Your task to perform on an android device: turn notification dots on Image 0: 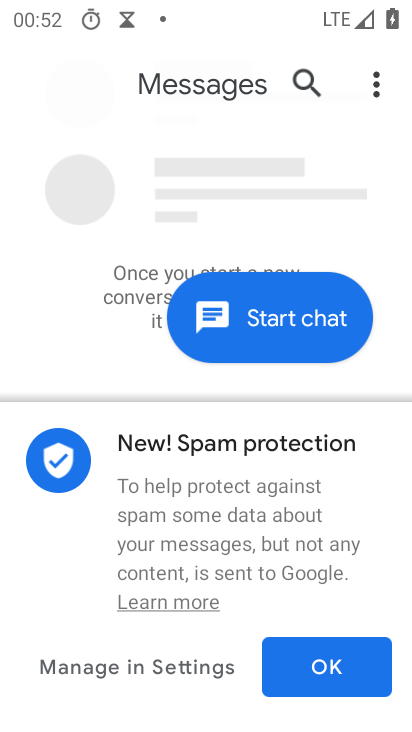
Step 0: press home button
Your task to perform on an android device: turn notification dots on Image 1: 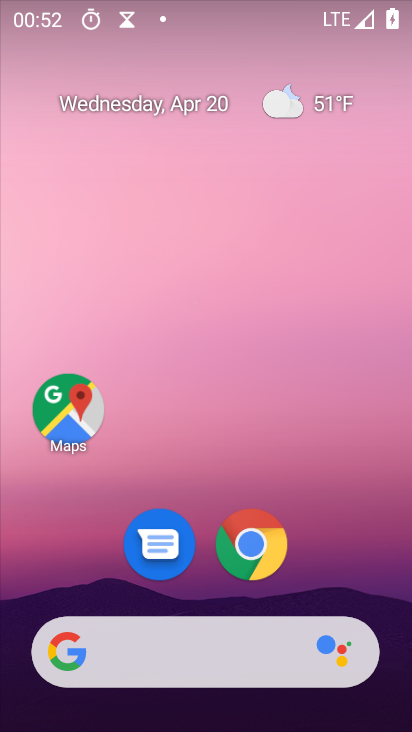
Step 1: drag from (343, 576) to (391, 71)
Your task to perform on an android device: turn notification dots on Image 2: 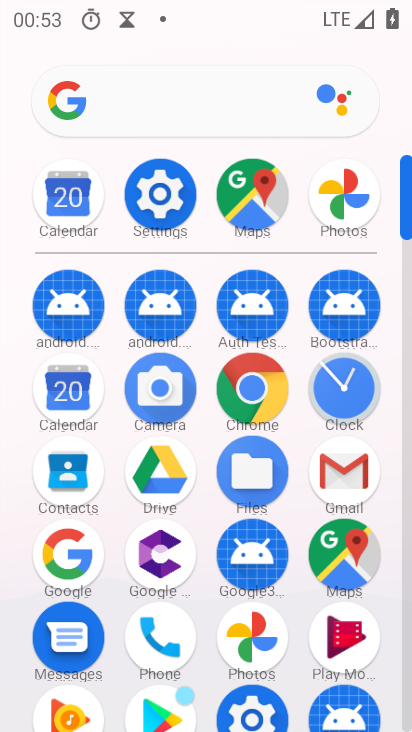
Step 2: click (262, 704)
Your task to perform on an android device: turn notification dots on Image 3: 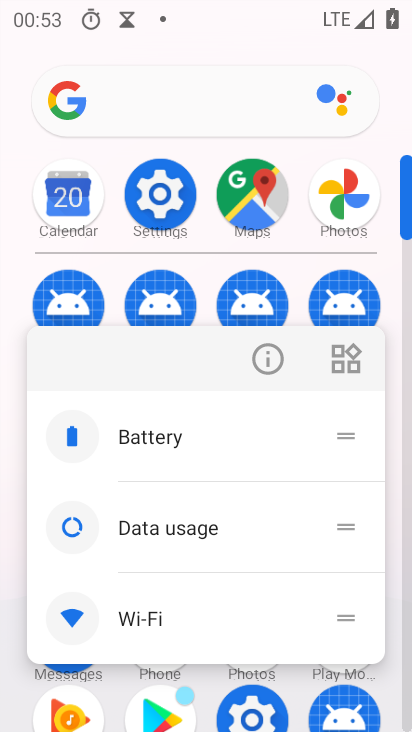
Step 3: click (256, 697)
Your task to perform on an android device: turn notification dots on Image 4: 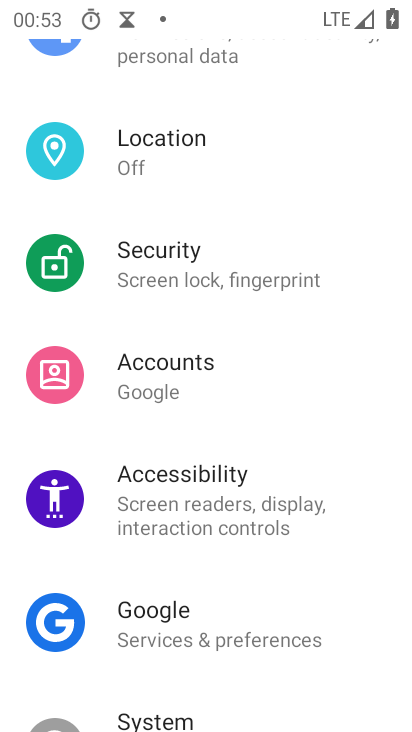
Step 4: drag from (226, 425) to (229, 487)
Your task to perform on an android device: turn notification dots on Image 5: 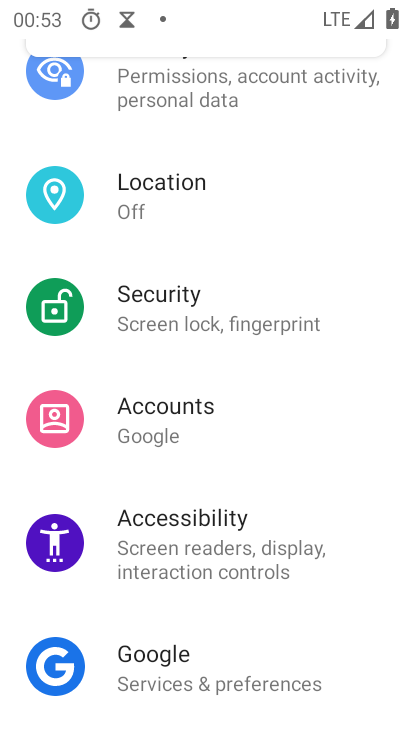
Step 5: drag from (204, 371) to (208, 429)
Your task to perform on an android device: turn notification dots on Image 6: 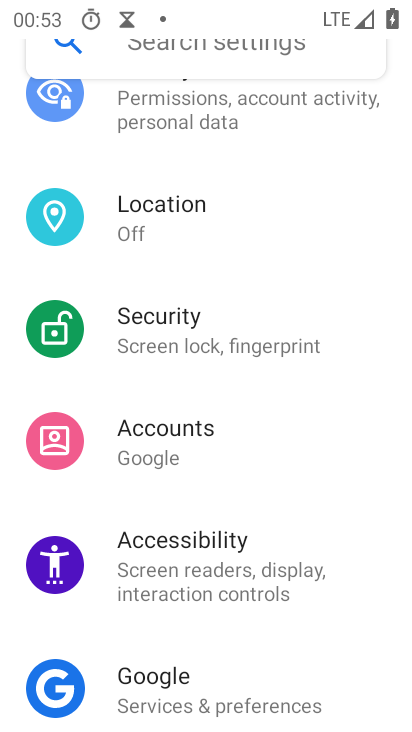
Step 6: drag from (199, 390) to (201, 470)
Your task to perform on an android device: turn notification dots on Image 7: 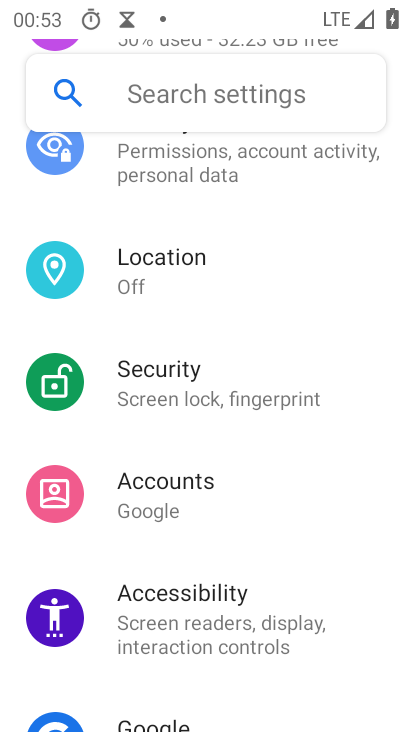
Step 7: drag from (197, 398) to (217, 464)
Your task to perform on an android device: turn notification dots on Image 8: 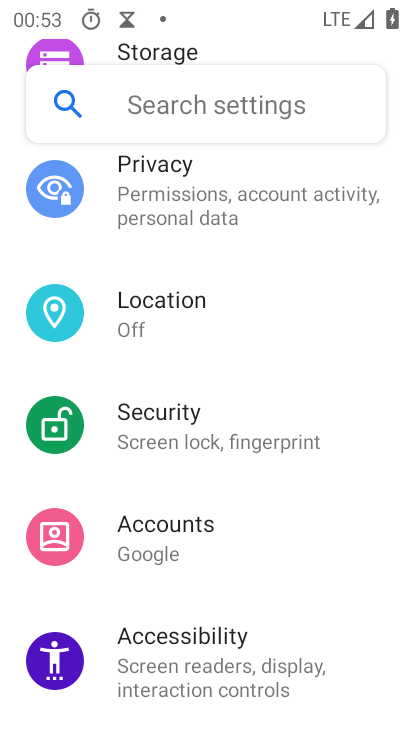
Step 8: drag from (204, 406) to (210, 447)
Your task to perform on an android device: turn notification dots on Image 9: 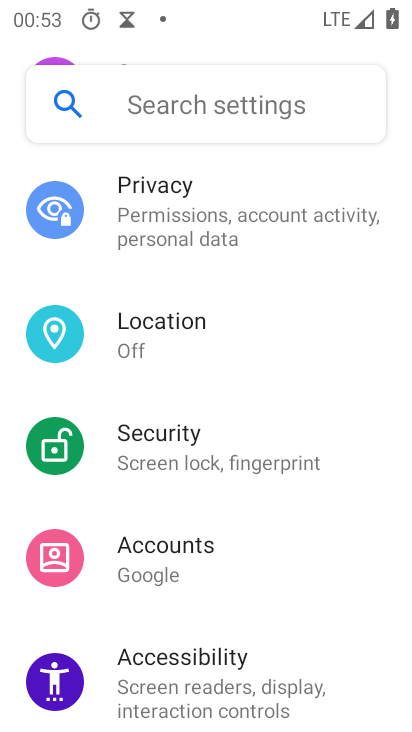
Step 9: drag from (189, 387) to (198, 466)
Your task to perform on an android device: turn notification dots on Image 10: 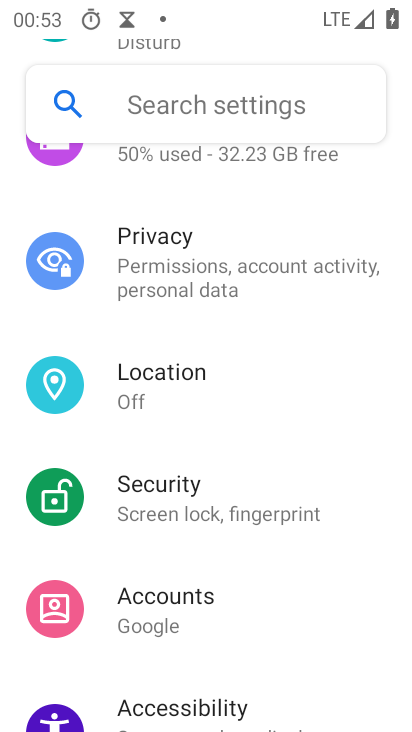
Step 10: drag from (191, 409) to (202, 485)
Your task to perform on an android device: turn notification dots on Image 11: 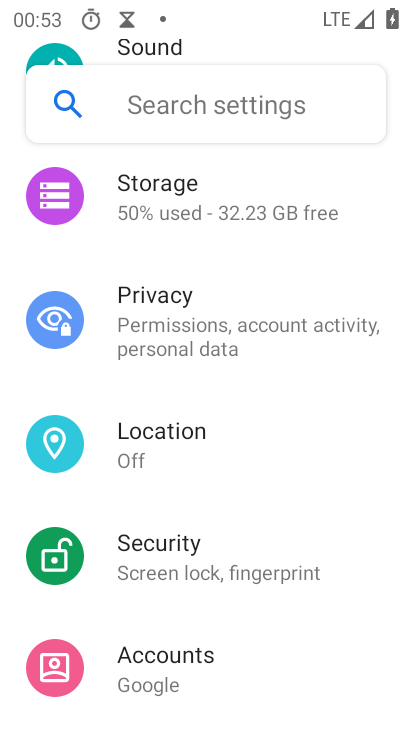
Step 11: drag from (190, 418) to (207, 472)
Your task to perform on an android device: turn notification dots on Image 12: 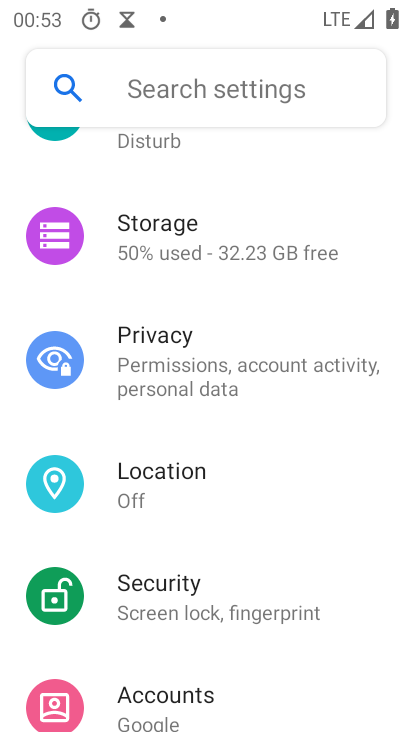
Step 12: drag from (201, 388) to (213, 456)
Your task to perform on an android device: turn notification dots on Image 13: 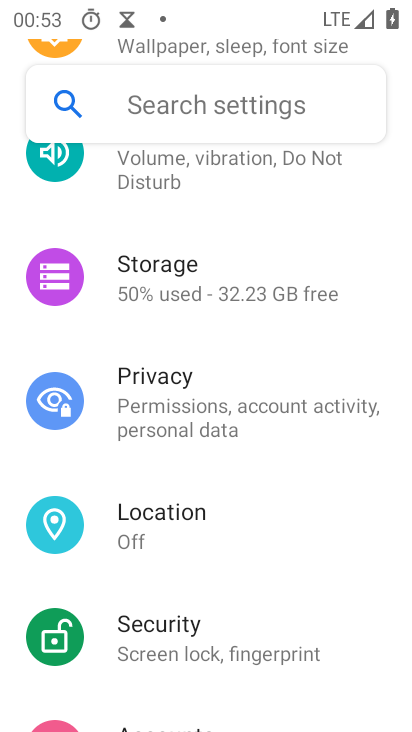
Step 13: drag from (199, 414) to (199, 482)
Your task to perform on an android device: turn notification dots on Image 14: 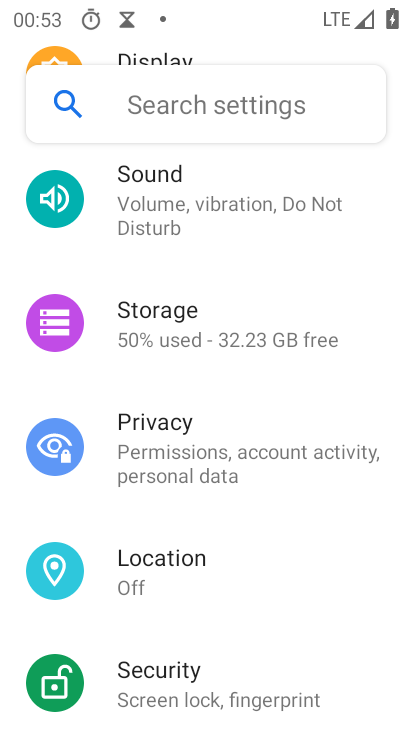
Step 14: drag from (158, 368) to (132, 494)
Your task to perform on an android device: turn notification dots on Image 15: 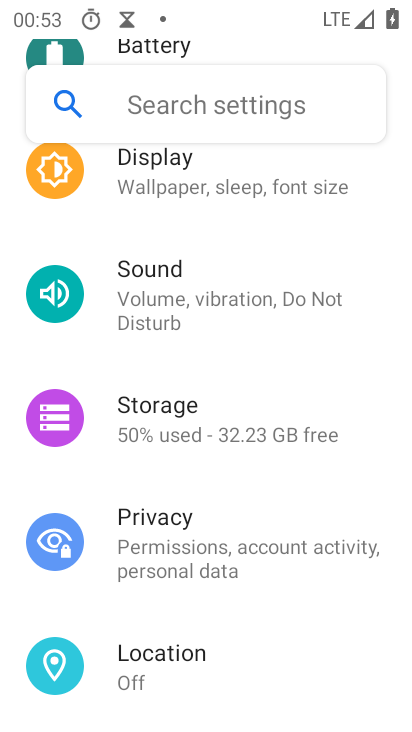
Step 15: drag from (133, 338) to (115, 400)
Your task to perform on an android device: turn notification dots on Image 16: 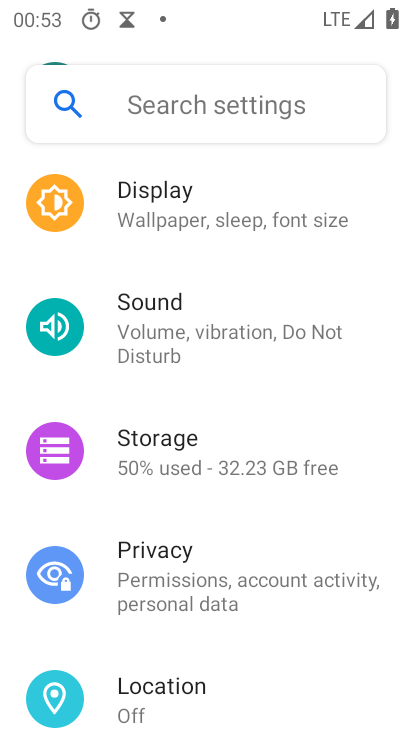
Step 16: drag from (147, 318) to (116, 426)
Your task to perform on an android device: turn notification dots on Image 17: 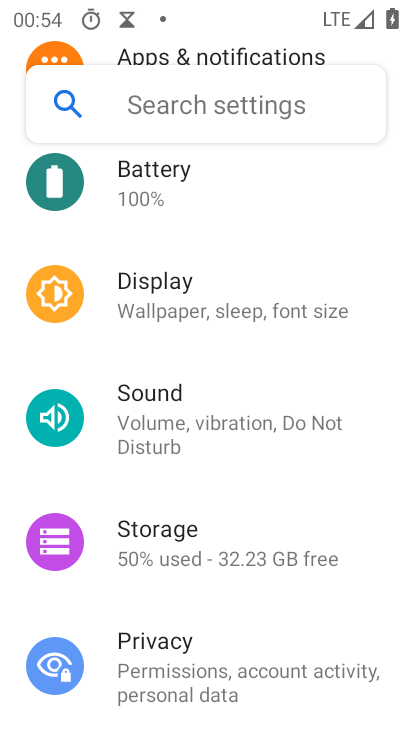
Step 17: drag from (190, 318) to (154, 420)
Your task to perform on an android device: turn notification dots on Image 18: 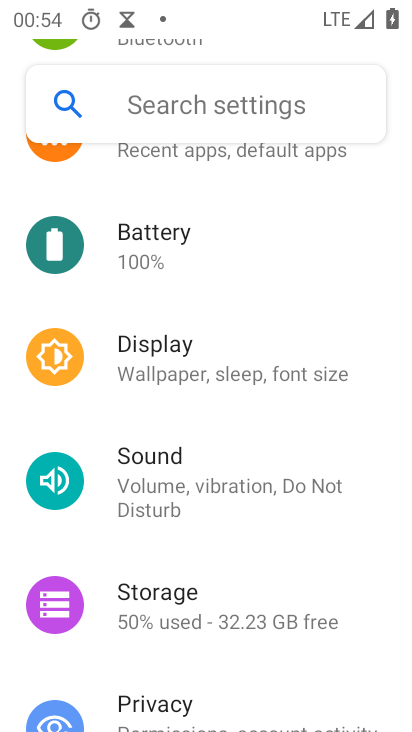
Step 18: drag from (188, 307) to (171, 413)
Your task to perform on an android device: turn notification dots on Image 19: 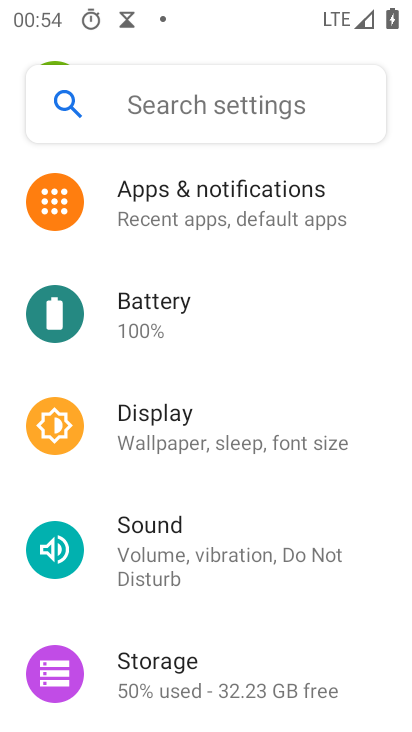
Step 19: click (222, 190)
Your task to perform on an android device: turn notification dots on Image 20: 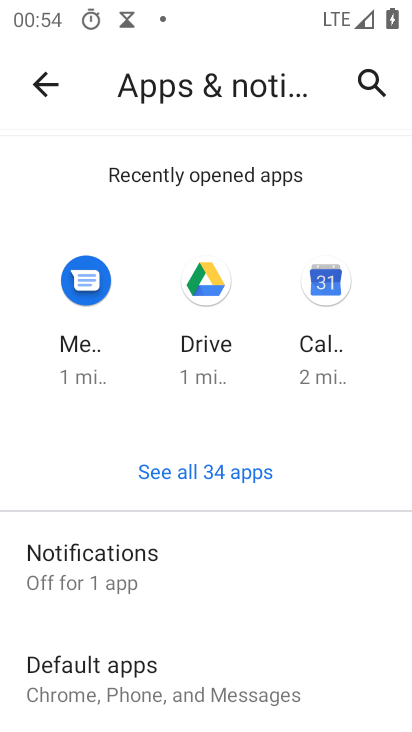
Step 20: click (214, 567)
Your task to perform on an android device: turn notification dots on Image 21: 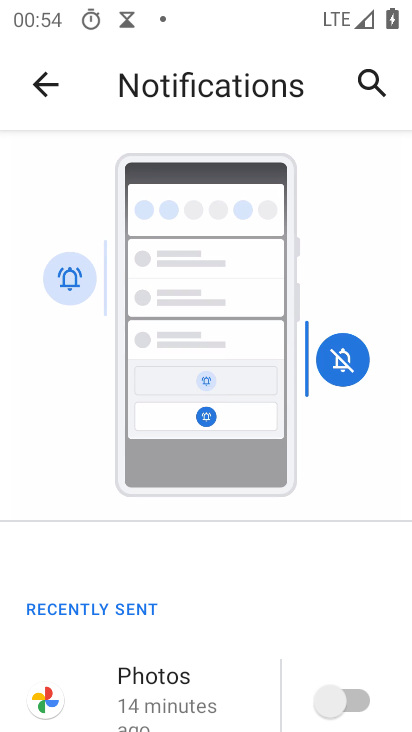
Step 21: drag from (222, 628) to (251, 287)
Your task to perform on an android device: turn notification dots on Image 22: 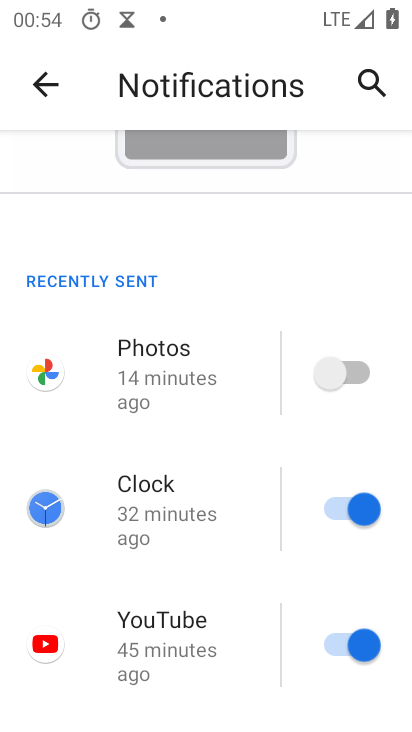
Step 22: drag from (205, 550) to (233, 394)
Your task to perform on an android device: turn notification dots on Image 23: 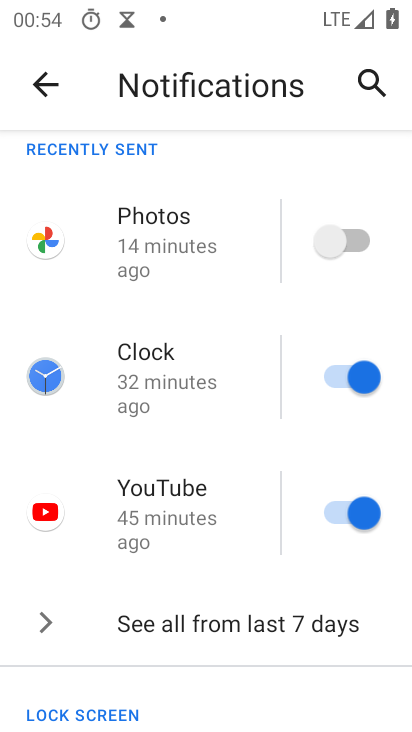
Step 23: drag from (219, 578) to (254, 450)
Your task to perform on an android device: turn notification dots on Image 24: 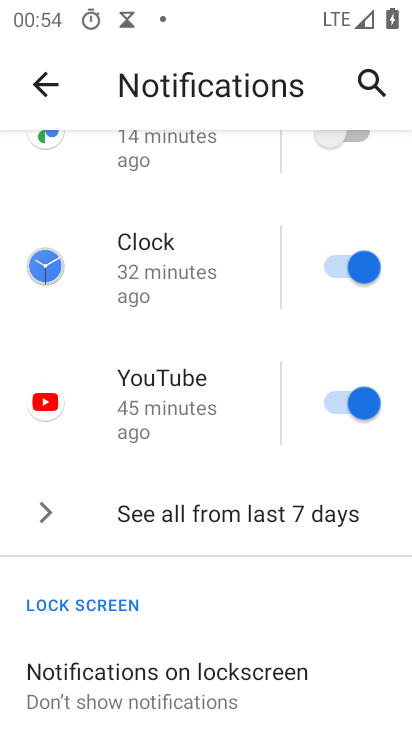
Step 24: drag from (220, 623) to (231, 489)
Your task to perform on an android device: turn notification dots on Image 25: 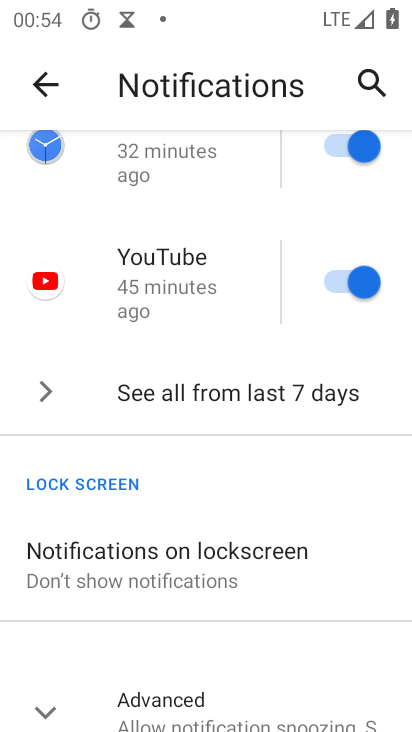
Step 25: drag from (205, 603) to (220, 492)
Your task to perform on an android device: turn notification dots on Image 26: 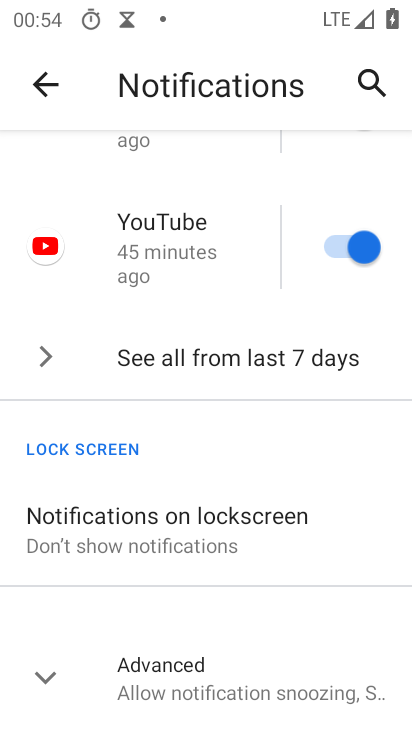
Step 26: click (223, 652)
Your task to perform on an android device: turn notification dots on Image 27: 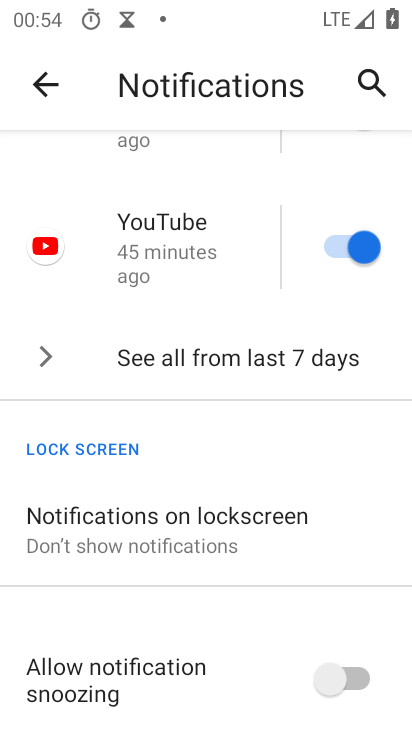
Step 27: task complete